Your task to perform on an android device: Open notification settings Image 0: 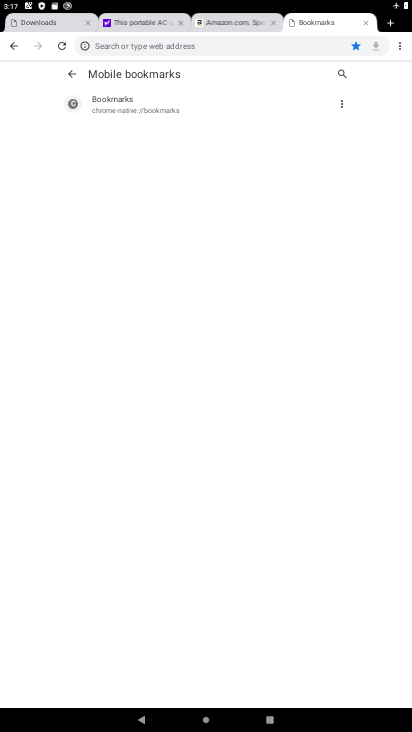
Step 0: press home button
Your task to perform on an android device: Open notification settings Image 1: 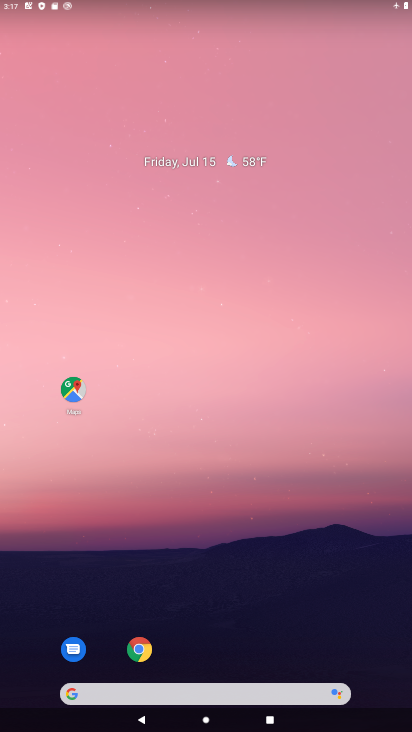
Step 1: drag from (241, 684) to (241, 169)
Your task to perform on an android device: Open notification settings Image 2: 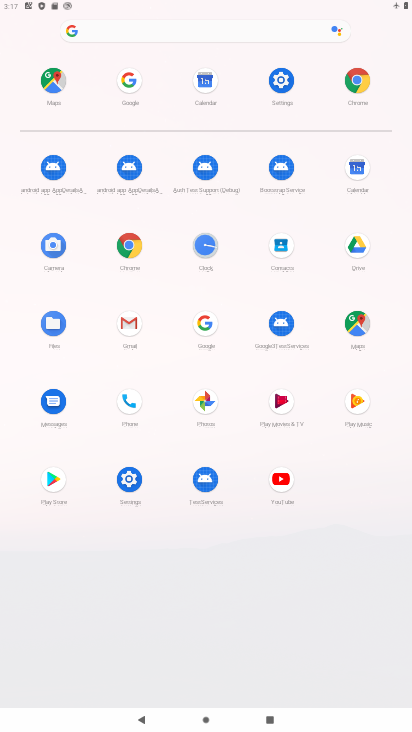
Step 2: click (282, 84)
Your task to perform on an android device: Open notification settings Image 3: 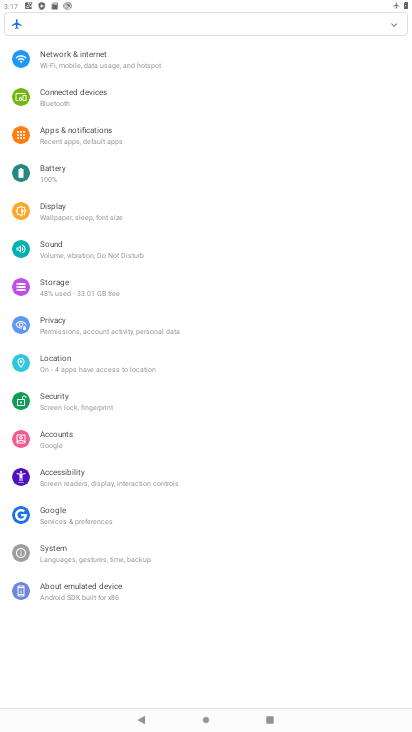
Step 3: click (95, 135)
Your task to perform on an android device: Open notification settings Image 4: 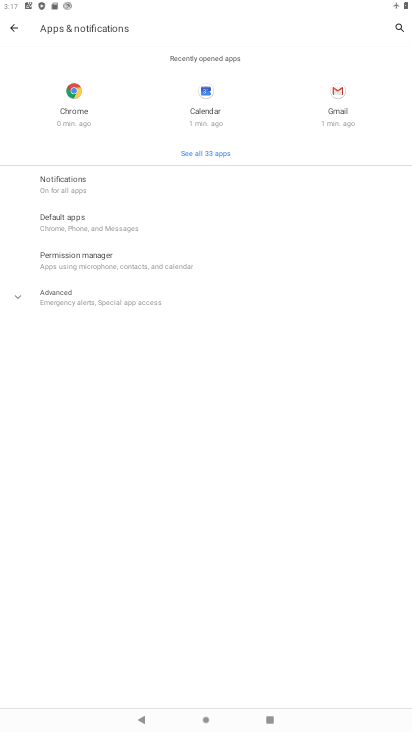
Step 4: click (59, 178)
Your task to perform on an android device: Open notification settings Image 5: 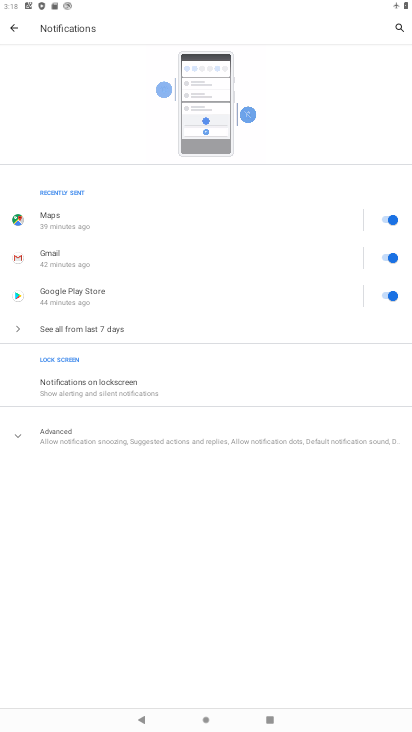
Step 5: task complete